Your task to perform on an android device: change your default location settings in chrome Image 0: 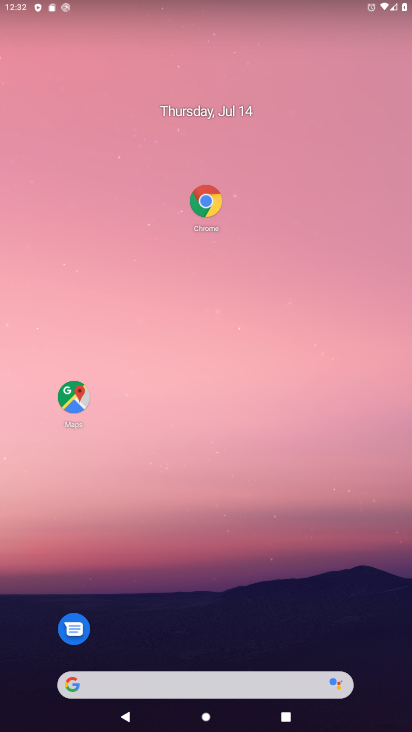
Step 0: click (207, 194)
Your task to perform on an android device: change your default location settings in chrome Image 1: 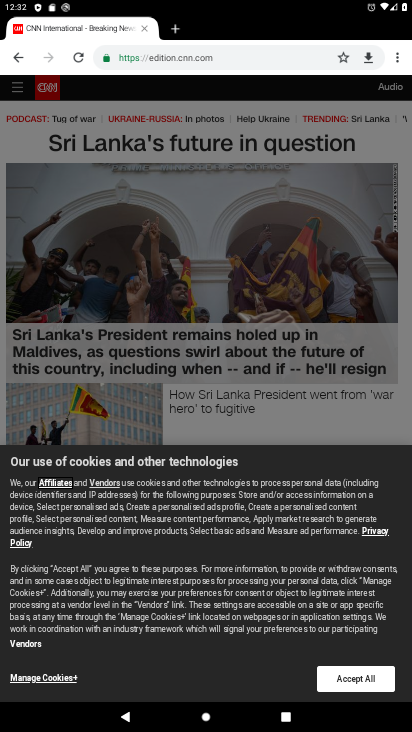
Step 1: click (399, 60)
Your task to perform on an android device: change your default location settings in chrome Image 2: 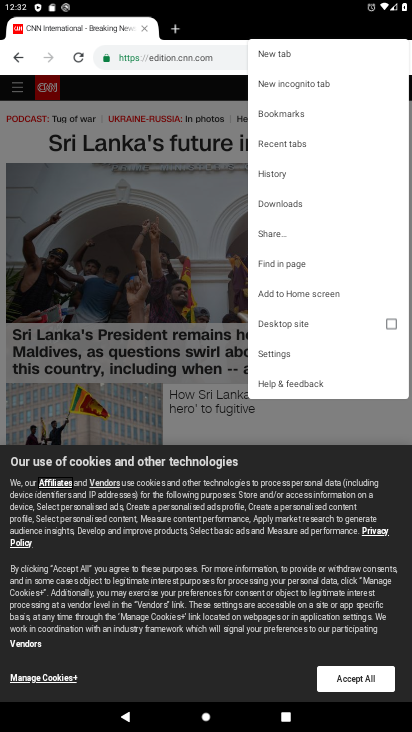
Step 2: click (271, 348)
Your task to perform on an android device: change your default location settings in chrome Image 3: 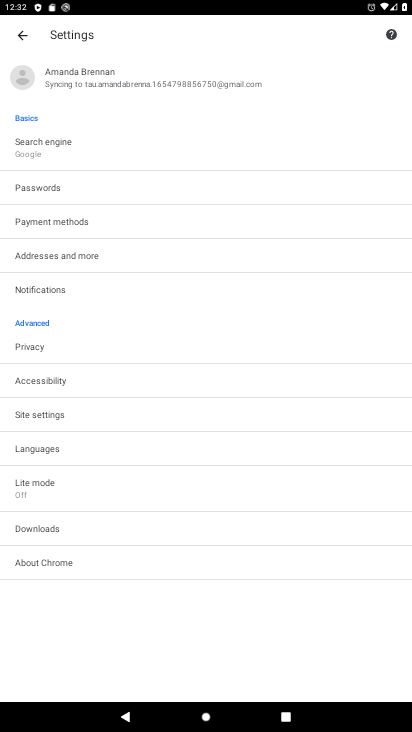
Step 3: click (33, 423)
Your task to perform on an android device: change your default location settings in chrome Image 4: 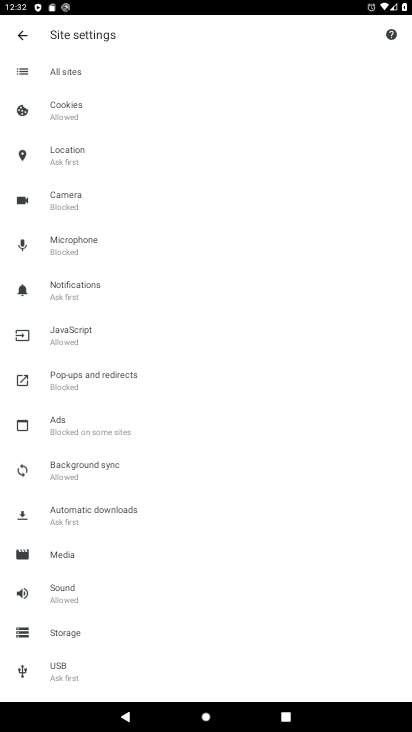
Step 4: click (91, 141)
Your task to perform on an android device: change your default location settings in chrome Image 5: 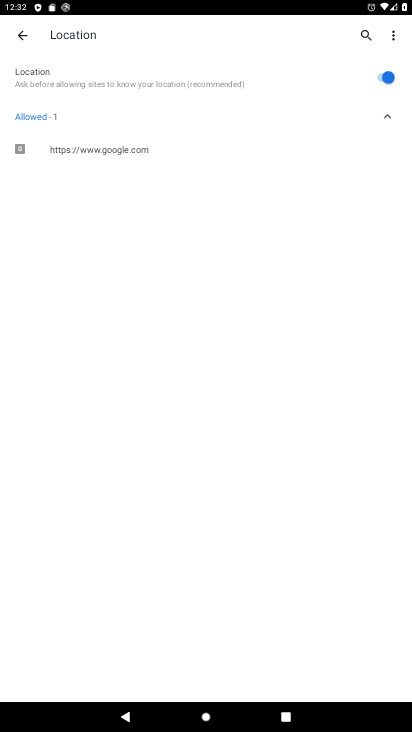
Step 5: click (379, 84)
Your task to perform on an android device: change your default location settings in chrome Image 6: 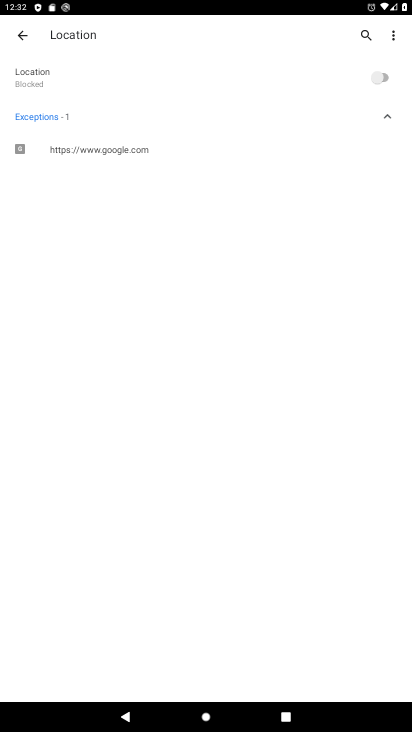
Step 6: task complete